Your task to perform on an android device: Open battery settings Image 0: 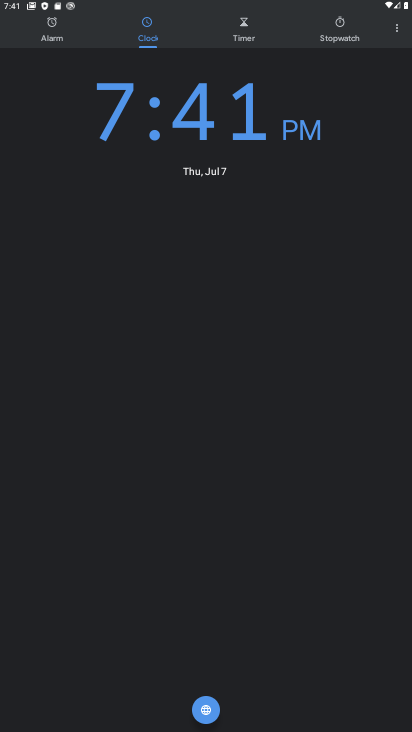
Step 0: press home button
Your task to perform on an android device: Open battery settings Image 1: 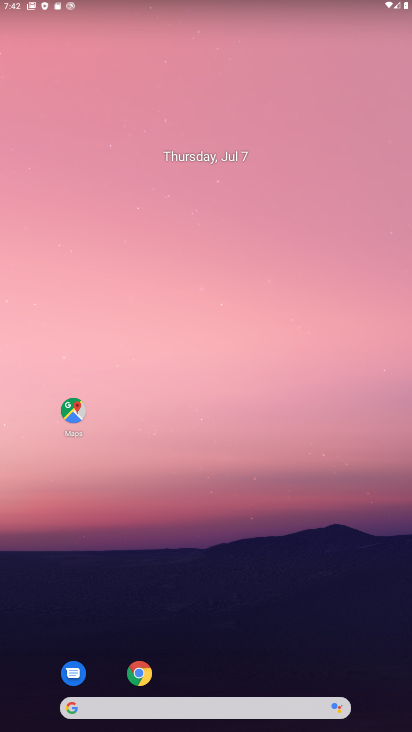
Step 1: drag from (230, 674) to (191, 71)
Your task to perform on an android device: Open battery settings Image 2: 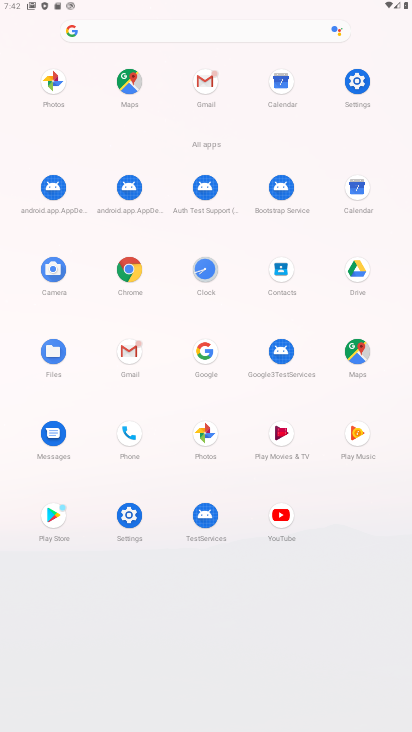
Step 2: click (353, 79)
Your task to perform on an android device: Open battery settings Image 3: 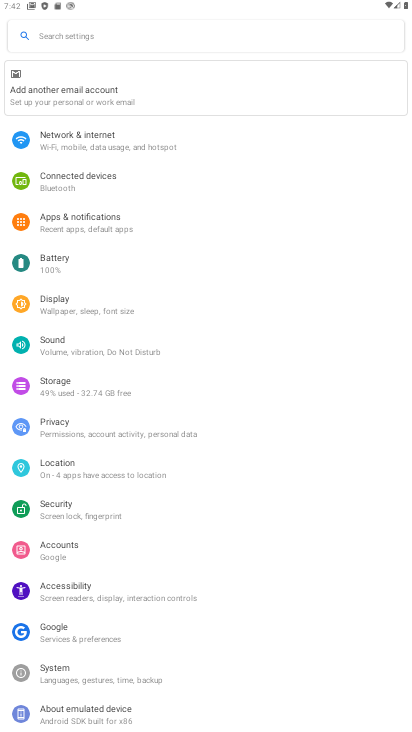
Step 3: drag from (237, 549) to (237, 262)
Your task to perform on an android device: Open battery settings Image 4: 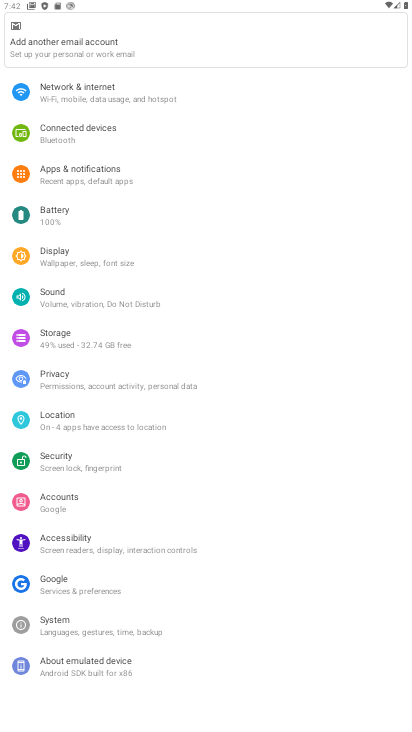
Step 4: click (59, 218)
Your task to perform on an android device: Open battery settings Image 5: 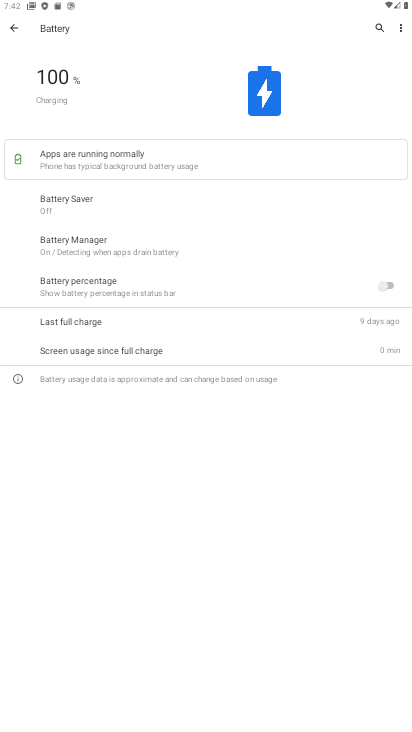
Step 5: task complete